Your task to perform on an android device: Open Android settings Image 0: 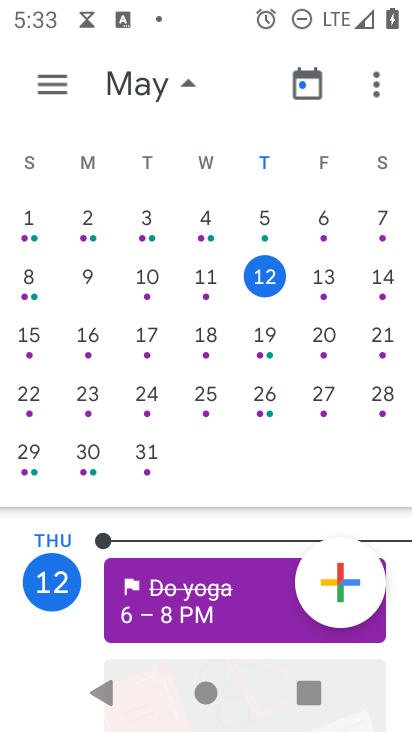
Step 0: press home button
Your task to perform on an android device: Open Android settings Image 1: 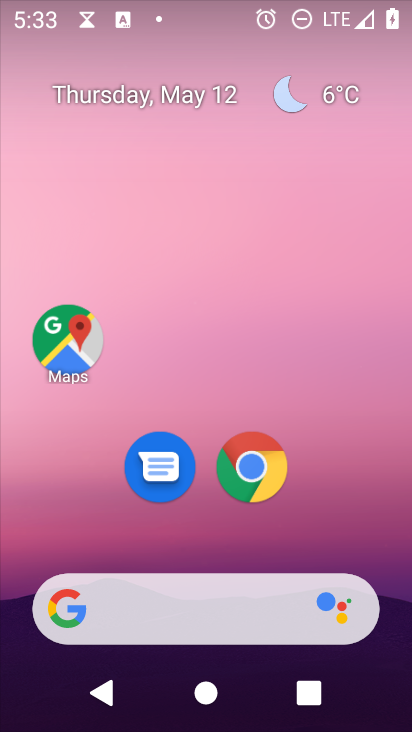
Step 1: drag from (266, 537) to (360, 10)
Your task to perform on an android device: Open Android settings Image 2: 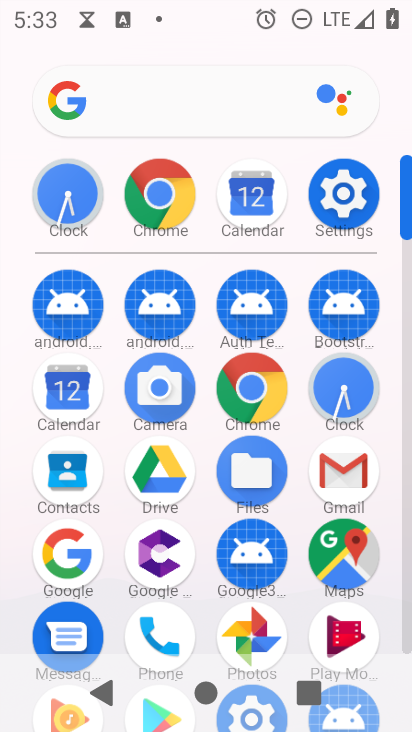
Step 2: click (328, 214)
Your task to perform on an android device: Open Android settings Image 3: 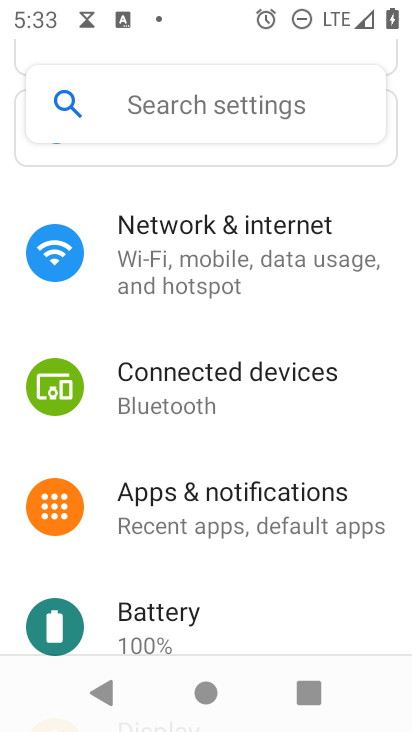
Step 3: drag from (268, 625) to (280, 158)
Your task to perform on an android device: Open Android settings Image 4: 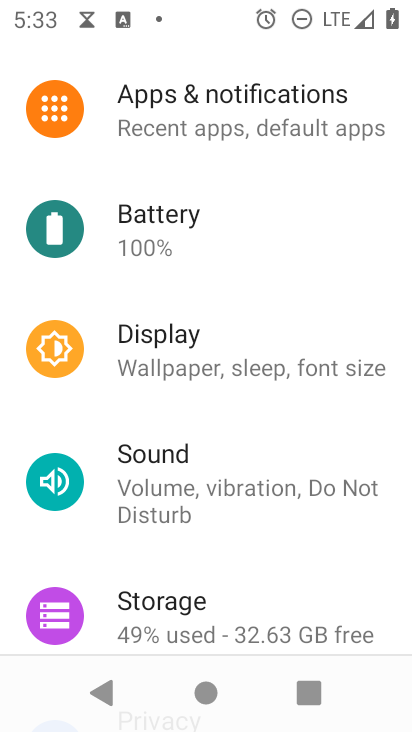
Step 4: drag from (267, 597) to (304, 122)
Your task to perform on an android device: Open Android settings Image 5: 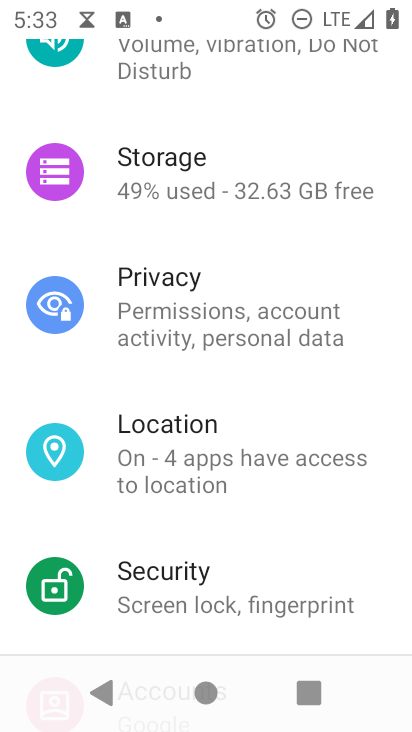
Step 5: drag from (274, 608) to (310, 43)
Your task to perform on an android device: Open Android settings Image 6: 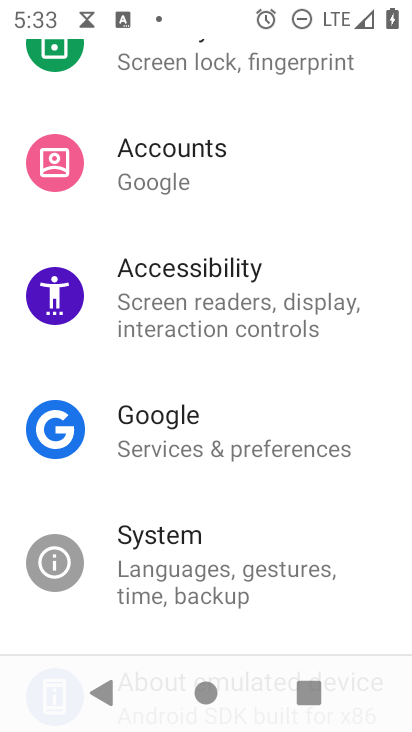
Step 6: drag from (278, 666) to (316, 197)
Your task to perform on an android device: Open Android settings Image 7: 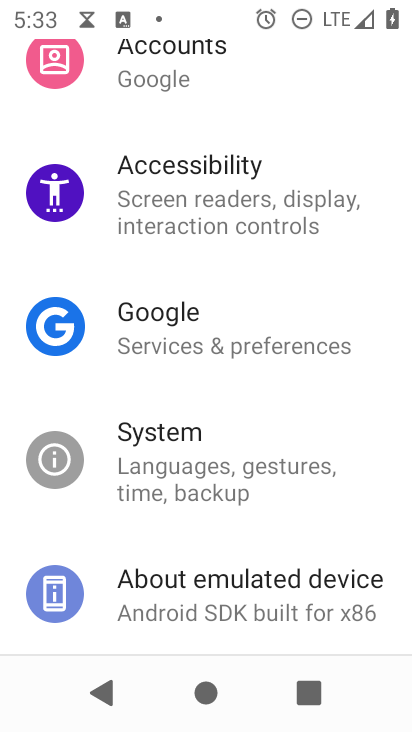
Step 7: click (321, 622)
Your task to perform on an android device: Open Android settings Image 8: 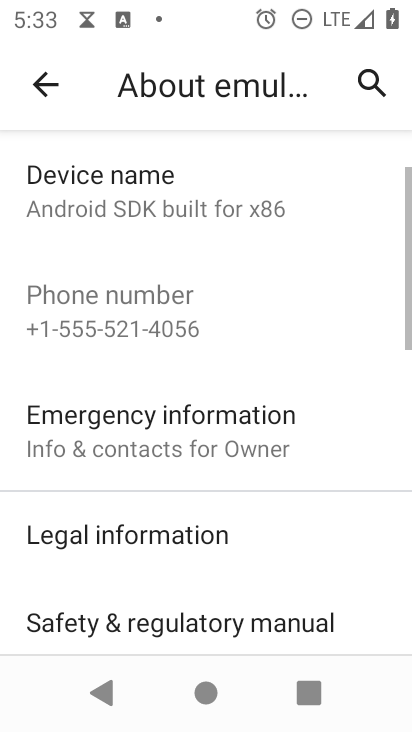
Step 8: drag from (324, 579) to (296, 52)
Your task to perform on an android device: Open Android settings Image 9: 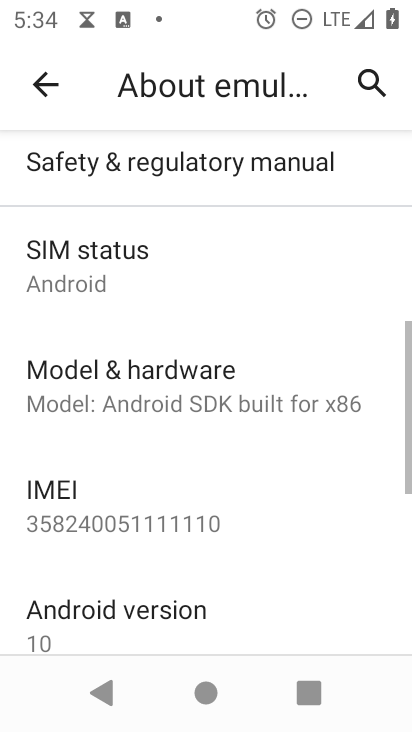
Step 9: click (174, 621)
Your task to perform on an android device: Open Android settings Image 10: 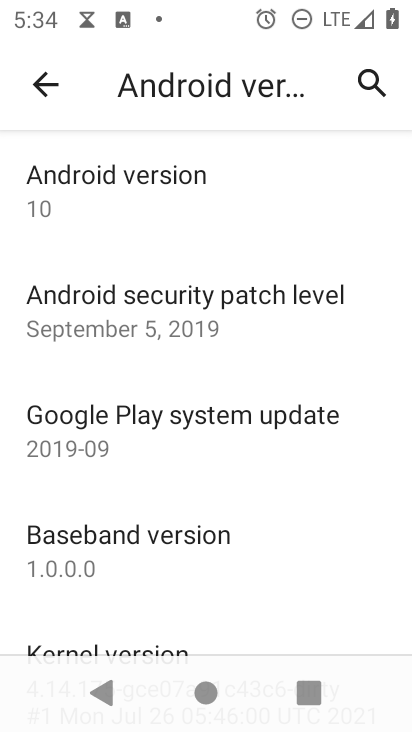
Step 10: task complete